Your task to perform on an android device: Open the phone app and click the voicemail tab. Image 0: 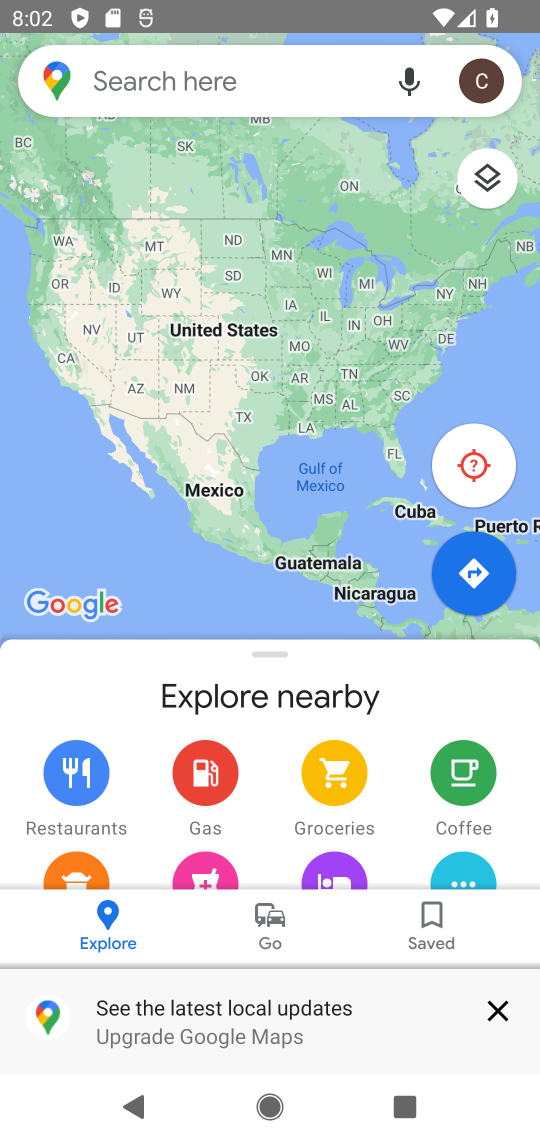
Step 0: press home button
Your task to perform on an android device: Open the phone app and click the voicemail tab. Image 1: 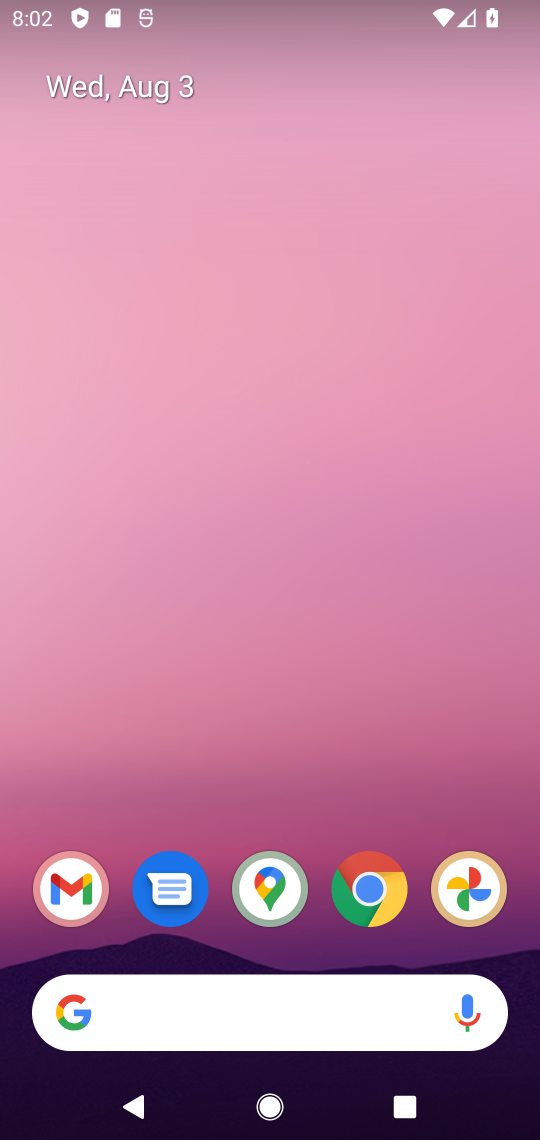
Step 1: drag from (309, 781) to (308, 0)
Your task to perform on an android device: Open the phone app and click the voicemail tab. Image 2: 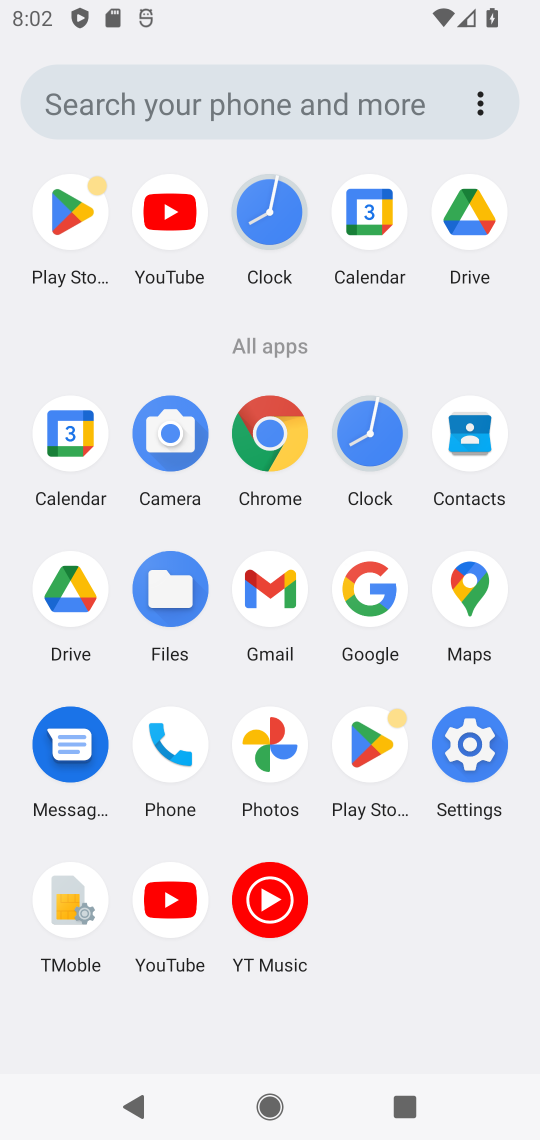
Step 2: click (181, 747)
Your task to perform on an android device: Open the phone app and click the voicemail tab. Image 3: 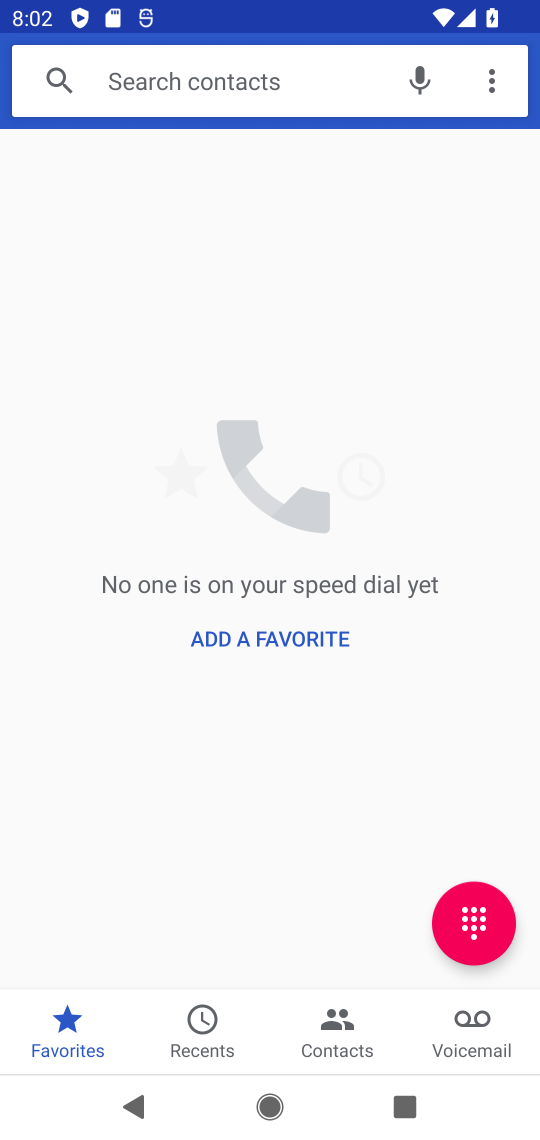
Step 3: click (473, 1043)
Your task to perform on an android device: Open the phone app and click the voicemail tab. Image 4: 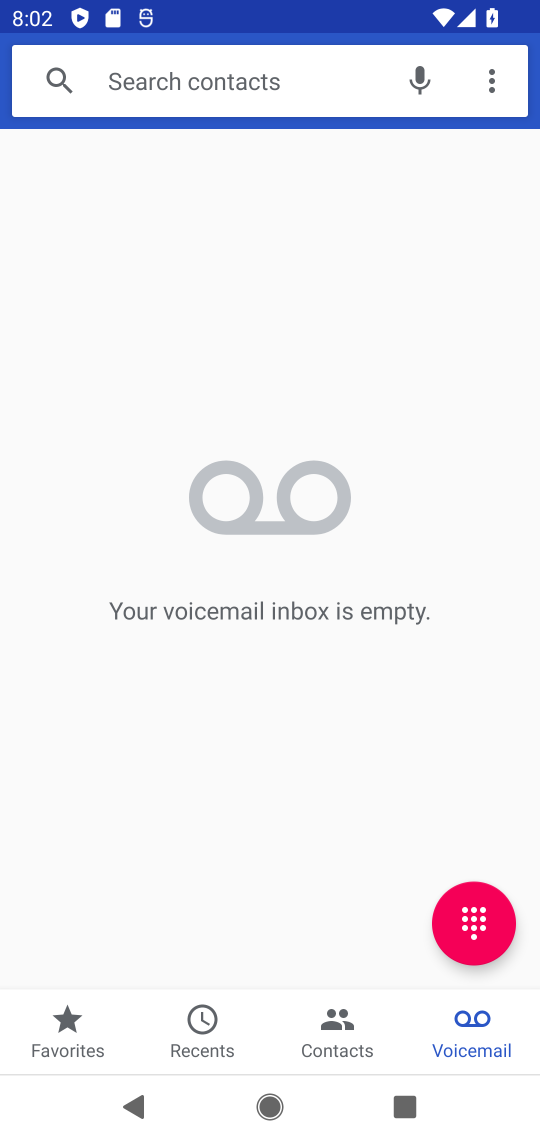
Step 4: task complete